Your task to perform on an android device: Open eBay Image 0: 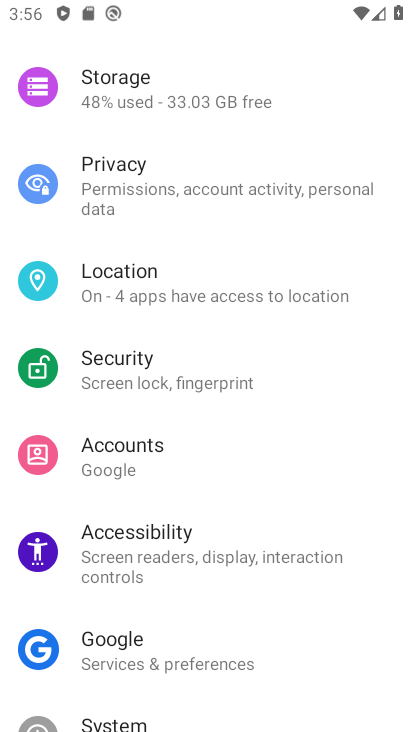
Step 0: press home button
Your task to perform on an android device: Open eBay Image 1: 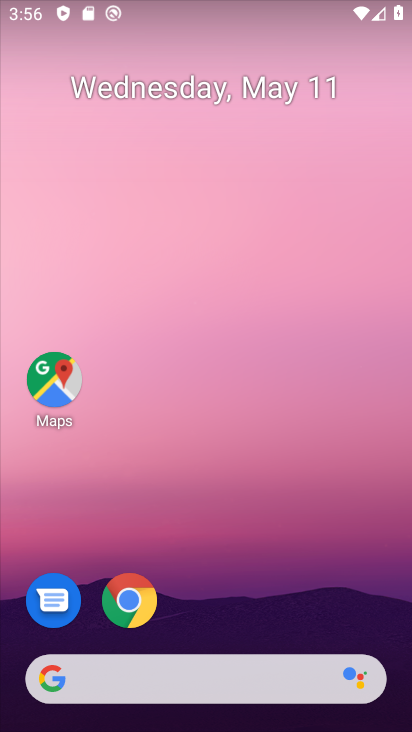
Step 1: click (148, 607)
Your task to perform on an android device: Open eBay Image 2: 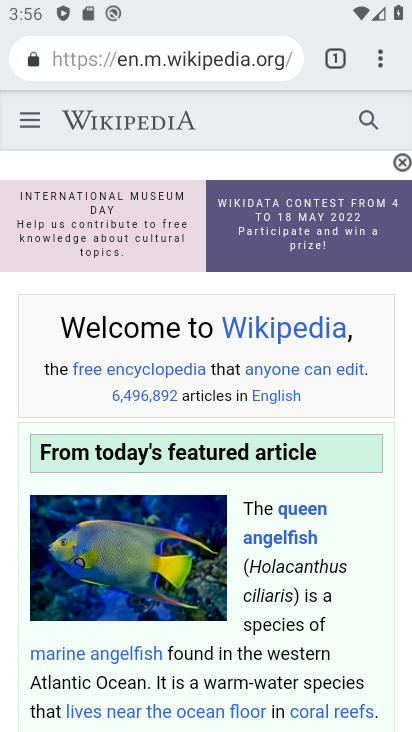
Step 2: click (269, 59)
Your task to perform on an android device: Open eBay Image 3: 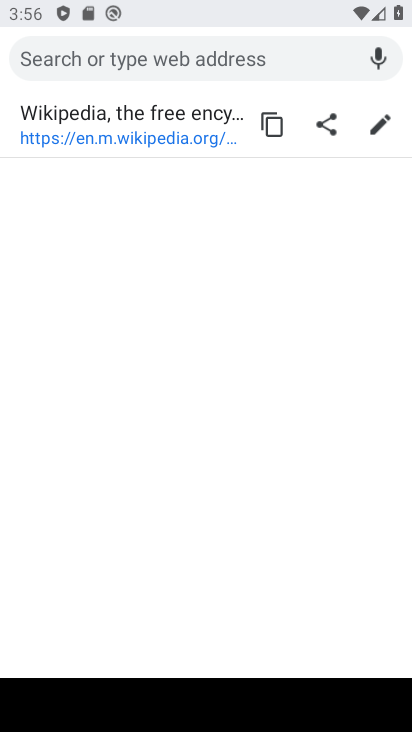
Step 3: type "eBay"
Your task to perform on an android device: Open eBay Image 4: 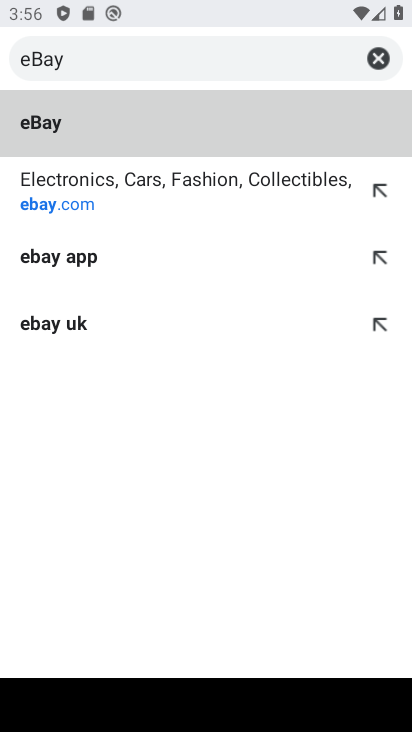
Step 4: click (149, 127)
Your task to perform on an android device: Open eBay Image 5: 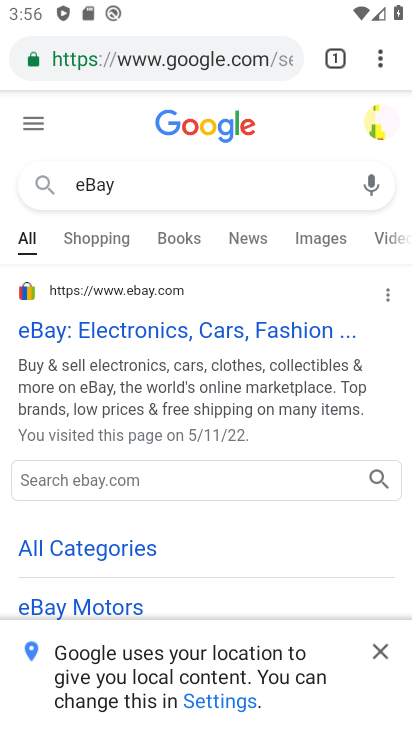
Step 5: click (217, 341)
Your task to perform on an android device: Open eBay Image 6: 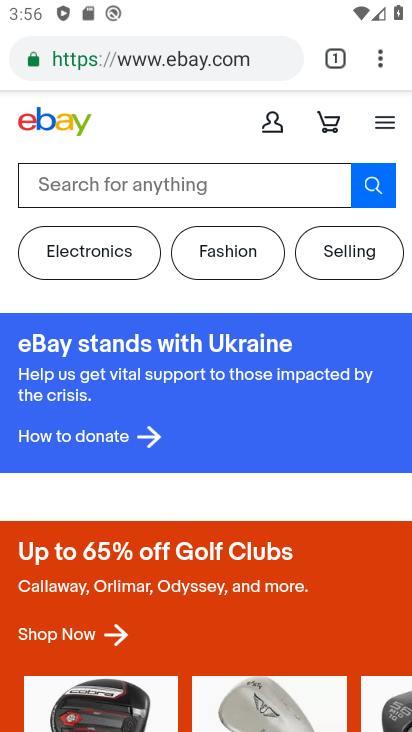
Step 6: task complete